Your task to perform on an android device: Open accessibility settings Image 0: 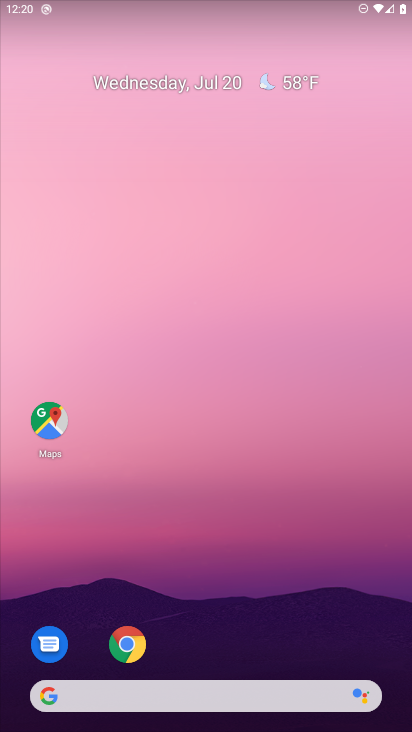
Step 0: drag from (13, 696) to (357, 76)
Your task to perform on an android device: Open accessibility settings Image 1: 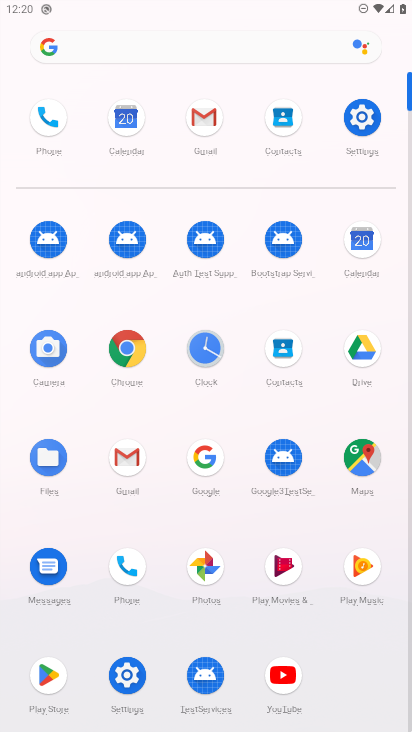
Step 1: click (126, 680)
Your task to perform on an android device: Open accessibility settings Image 2: 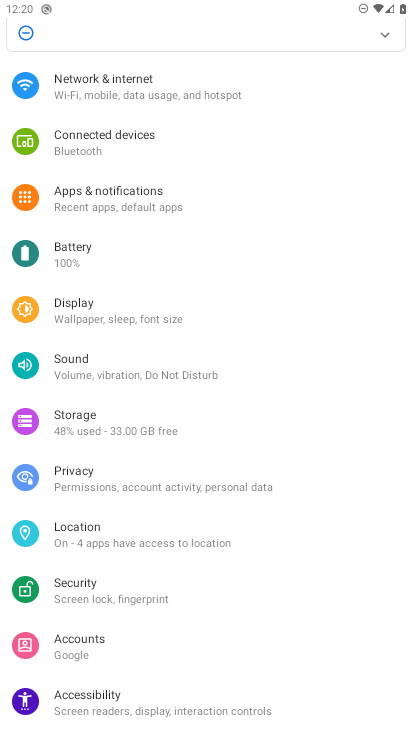
Step 2: click (100, 699)
Your task to perform on an android device: Open accessibility settings Image 3: 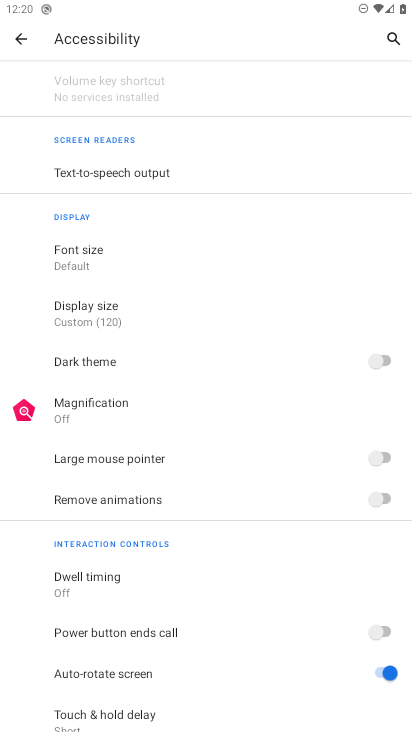
Step 3: task complete